Your task to perform on an android device: turn off notifications settings in the gmail app Image 0: 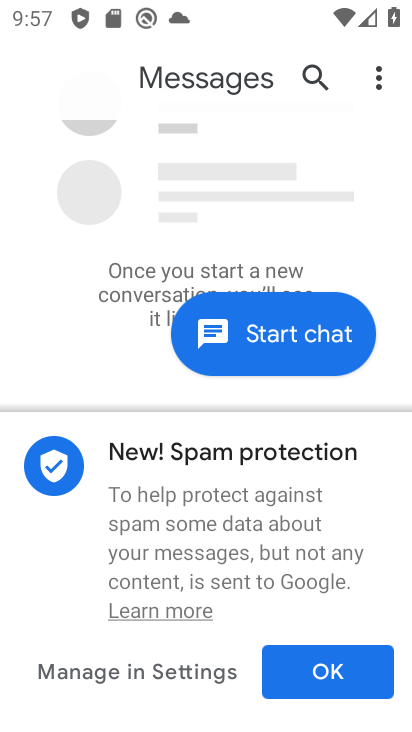
Step 0: press home button
Your task to perform on an android device: turn off notifications settings in the gmail app Image 1: 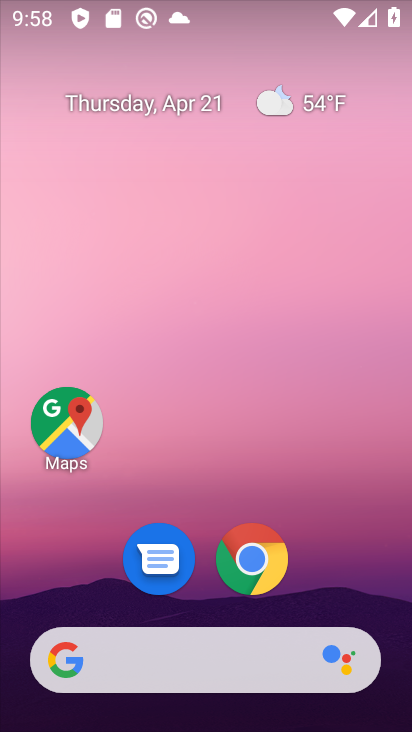
Step 1: drag from (174, 604) to (239, 162)
Your task to perform on an android device: turn off notifications settings in the gmail app Image 2: 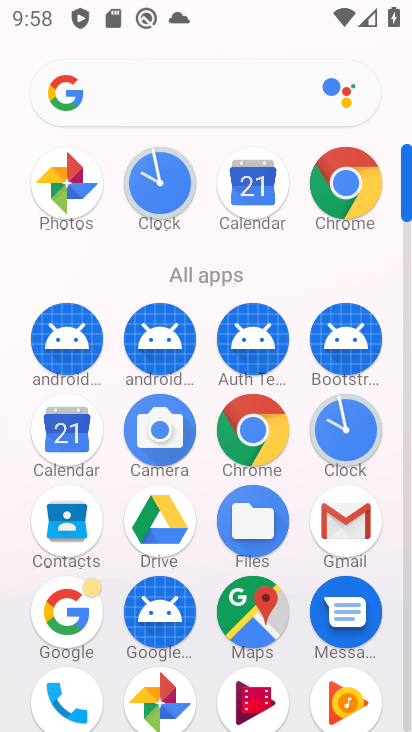
Step 2: click (340, 530)
Your task to perform on an android device: turn off notifications settings in the gmail app Image 3: 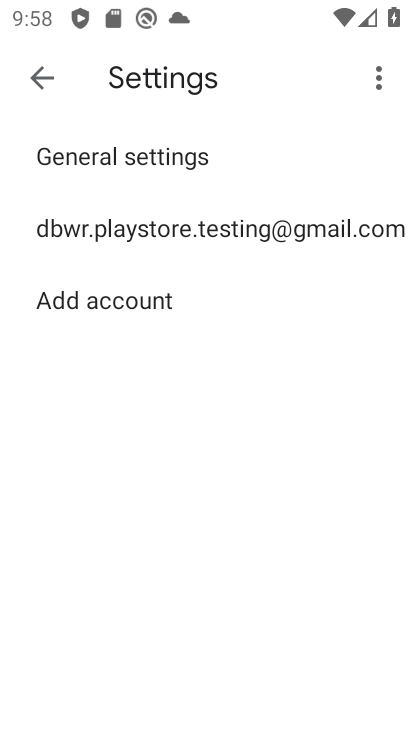
Step 3: click (288, 230)
Your task to perform on an android device: turn off notifications settings in the gmail app Image 4: 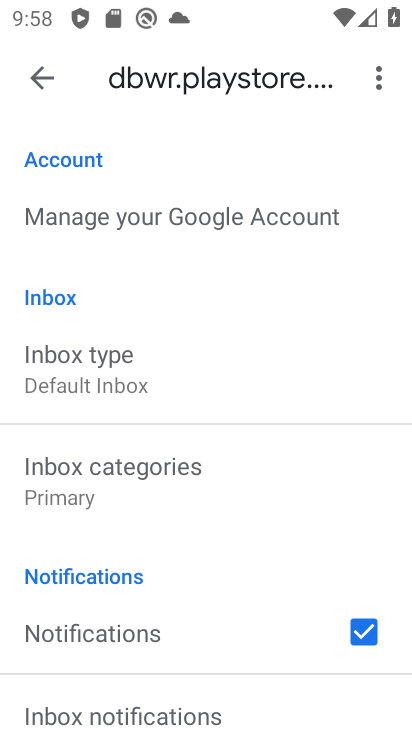
Step 4: drag from (183, 492) to (281, 257)
Your task to perform on an android device: turn off notifications settings in the gmail app Image 5: 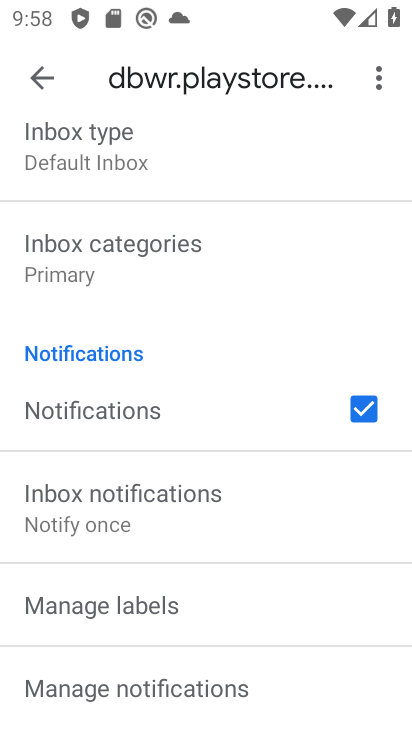
Step 5: click (359, 409)
Your task to perform on an android device: turn off notifications settings in the gmail app Image 6: 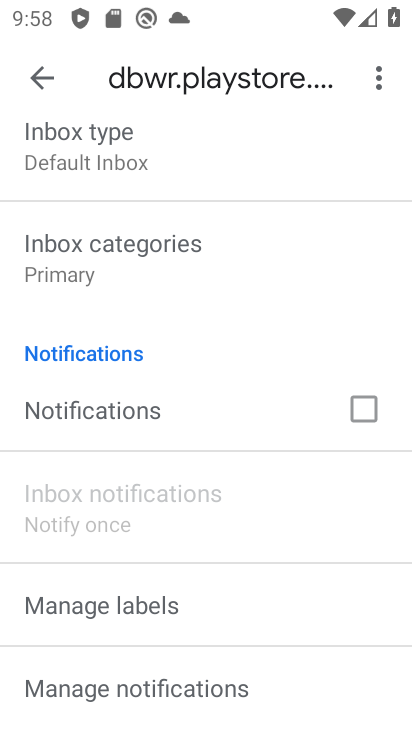
Step 6: task complete